Your task to perform on an android device: Open the calendar and show me this week's events Image 0: 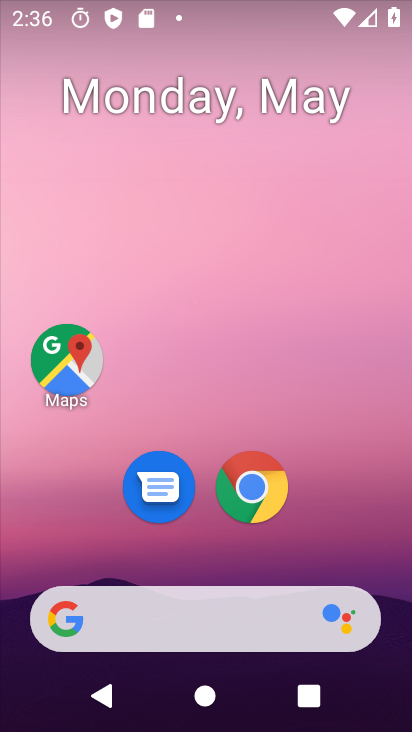
Step 0: drag from (223, 528) to (297, 139)
Your task to perform on an android device: Open the calendar and show me this week's events Image 1: 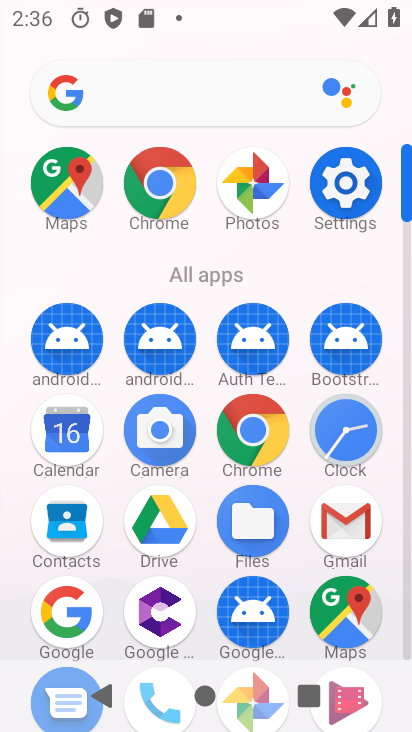
Step 1: click (77, 442)
Your task to perform on an android device: Open the calendar and show me this week's events Image 2: 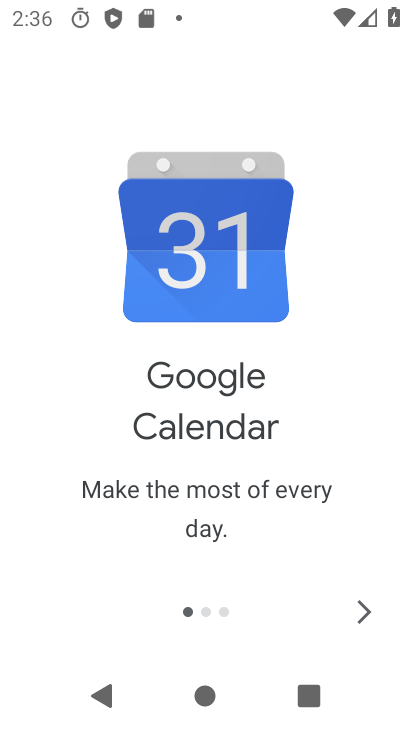
Step 2: click (366, 610)
Your task to perform on an android device: Open the calendar and show me this week's events Image 3: 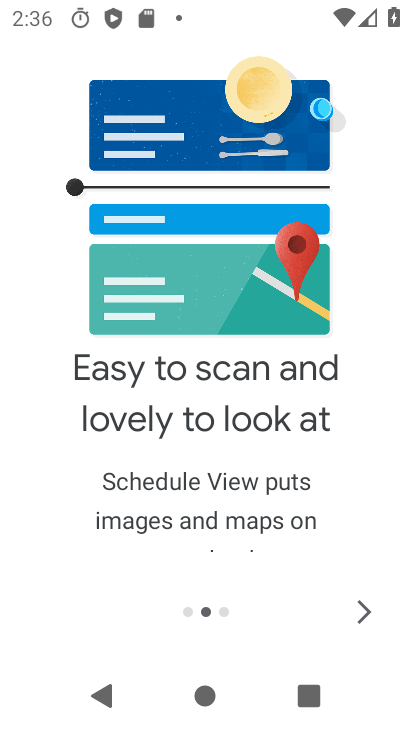
Step 3: click (364, 613)
Your task to perform on an android device: Open the calendar and show me this week's events Image 4: 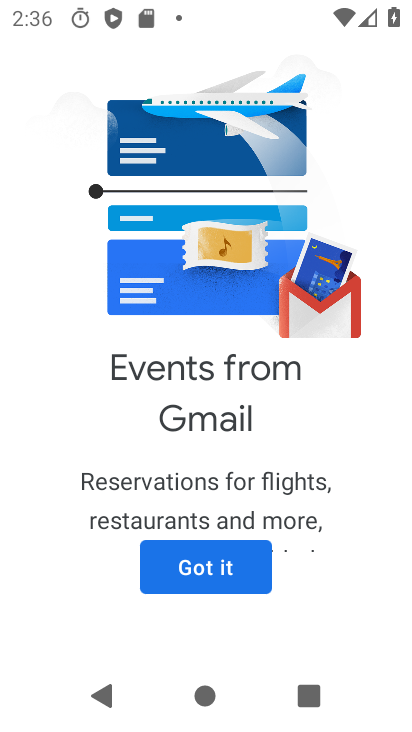
Step 4: click (230, 565)
Your task to perform on an android device: Open the calendar and show me this week's events Image 5: 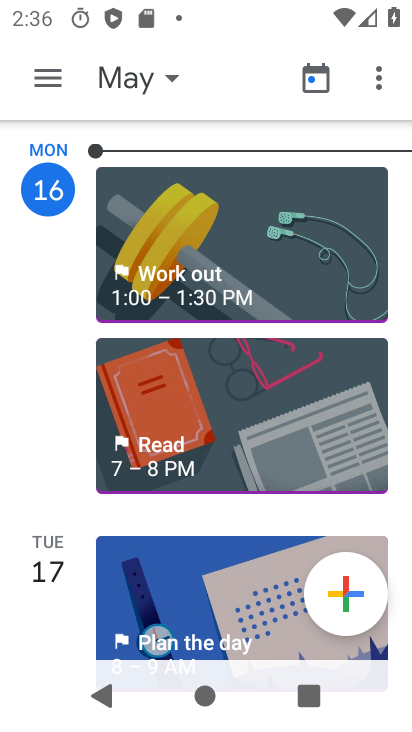
Step 5: click (36, 75)
Your task to perform on an android device: Open the calendar and show me this week's events Image 6: 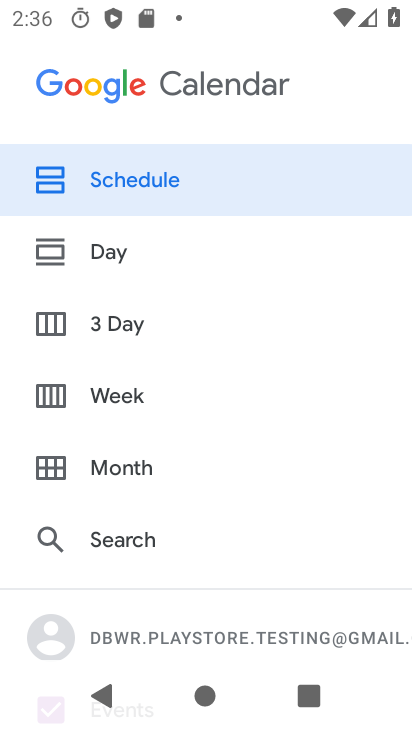
Step 6: click (111, 392)
Your task to perform on an android device: Open the calendar and show me this week's events Image 7: 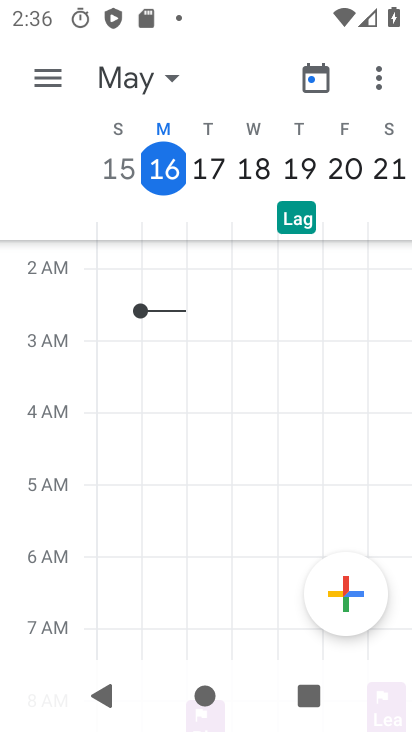
Step 7: task complete